Your task to perform on an android device: Open calendar and show me the second week of next month Image 0: 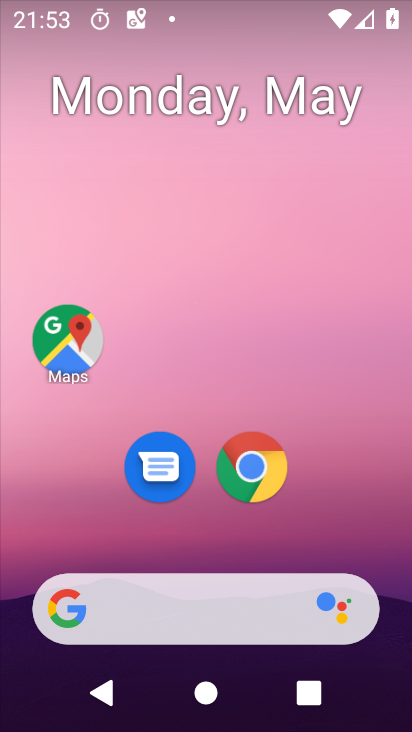
Step 0: drag from (269, 633) to (294, 90)
Your task to perform on an android device: Open calendar and show me the second week of next month Image 1: 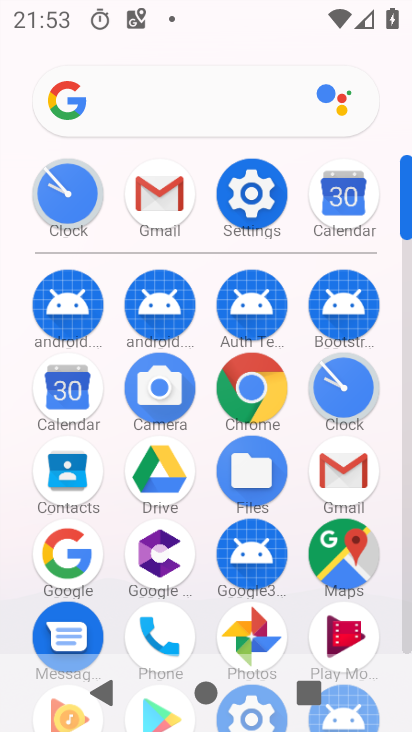
Step 1: click (73, 373)
Your task to perform on an android device: Open calendar and show me the second week of next month Image 2: 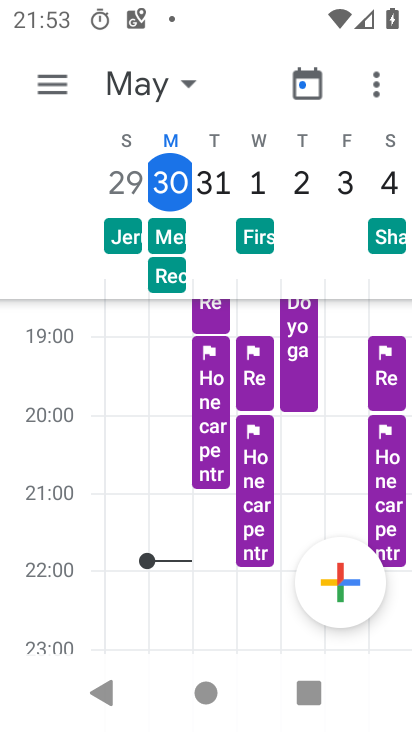
Step 2: click (56, 80)
Your task to perform on an android device: Open calendar and show me the second week of next month Image 3: 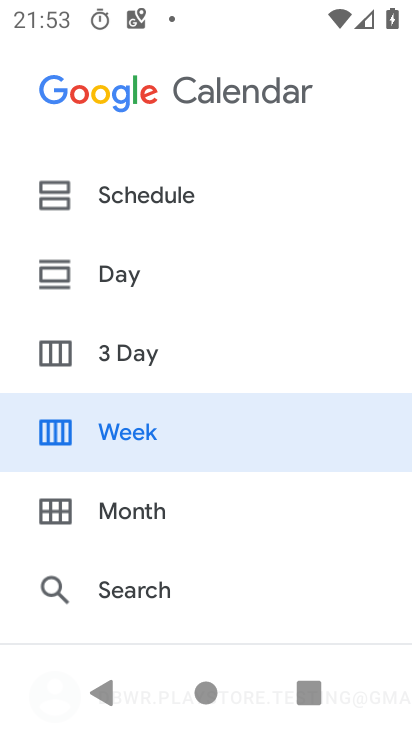
Step 3: click (136, 514)
Your task to perform on an android device: Open calendar and show me the second week of next month Image 4: 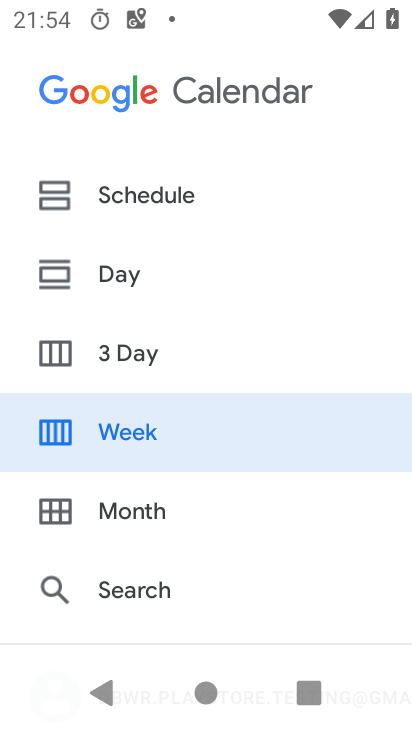
Step 4: click (123, 514)
Your task to perform on an android device: Open calendar and show me the second week of next month Image 5: 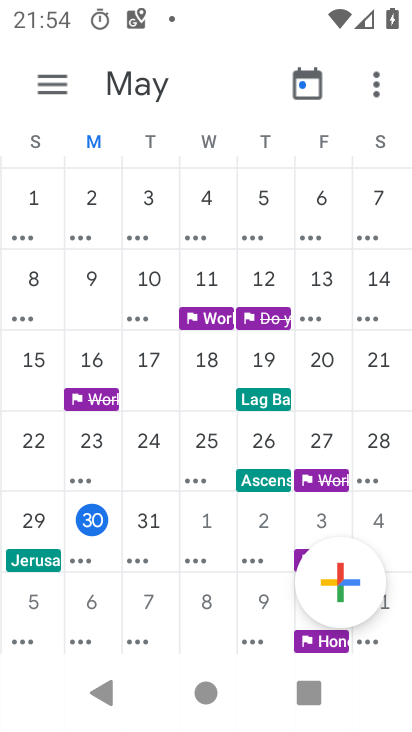
Step 5: drag from (380, 347) to (0, 237)
Your task to perform on an android device: Open calendar and show me the second week of next month Image 6: 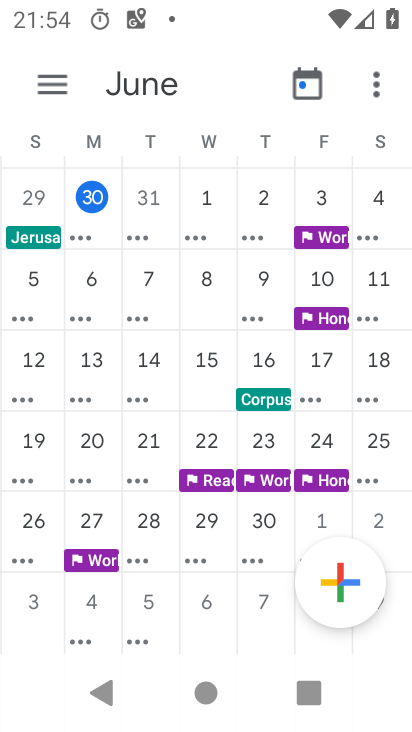
Step 6: click (88, 304)
Your task to perform on an android device: Open calendar and show me the second week of next month Image 7: 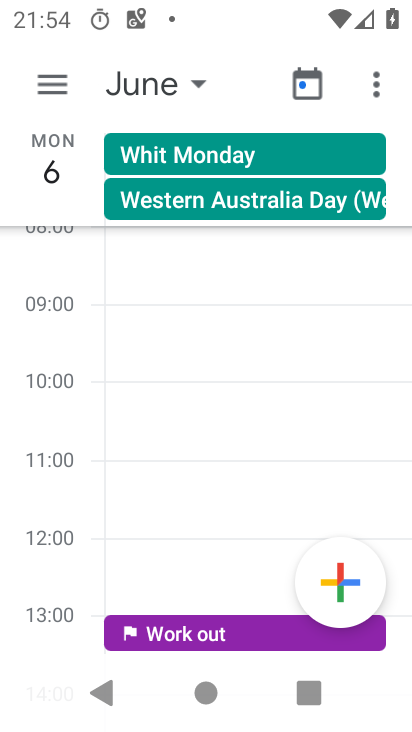
Step 7: task complete